Your task to perform on an android device: find photos in the google photos app Image 0: 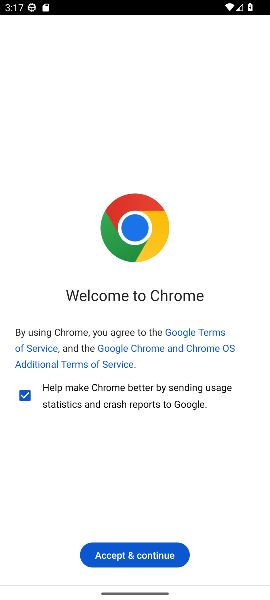
Step 0: press home button
Your task to perform on an android device: find photos in the google photos app Image 1: 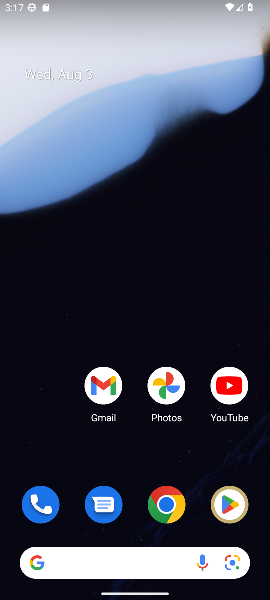
Step 1: drag from (132, 527) to (153, 22)
Your task to perform on an android device: find photos in the google photos app Image 2: 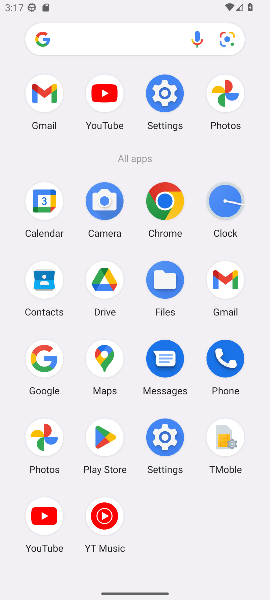
Step 2: click (42, 455)
Your task to perform on an android device: find photos in the google photos app Image 3: 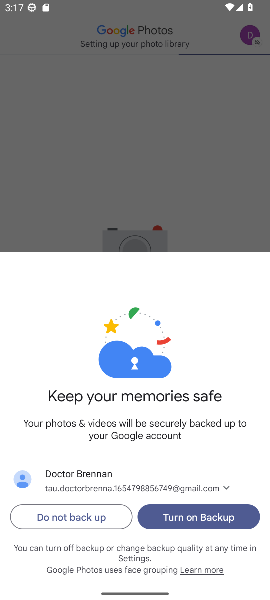
Step 3: click (89, 518)
Your task to perform on an android device: find photos in the google photos app Image 4: 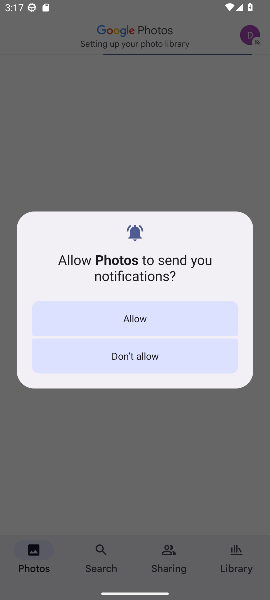
Step 4: click (141, 319)
Your task to perform on an android device: find photos in the google photos app Image 5: 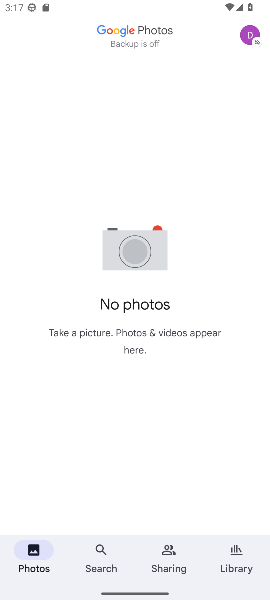
Step 5: task complete